Your task to perform on an android device: Open the web browser Image 0: 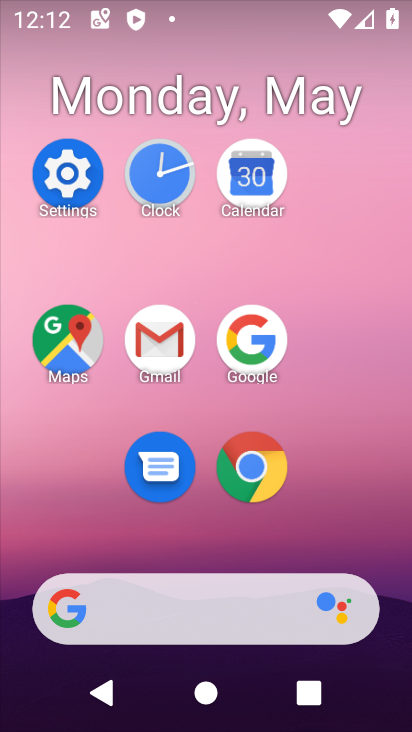
Step 0: click (257, 463)
Your task to perform on an android device: Open the web browser Image 1: 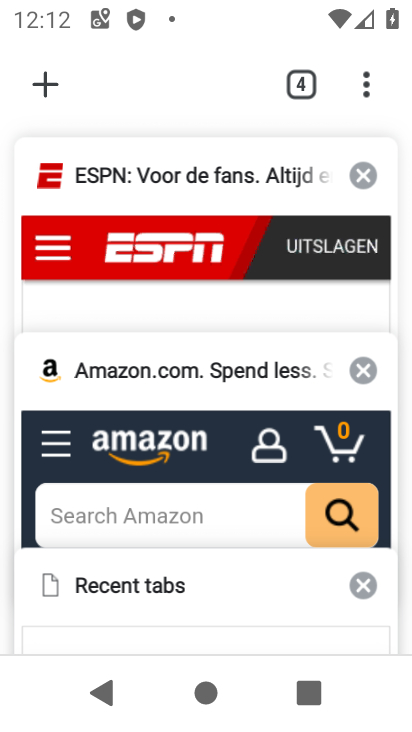
Step 1: task complete